Your task to perform on an android device: refresh tabs in the chrome app Image 0: 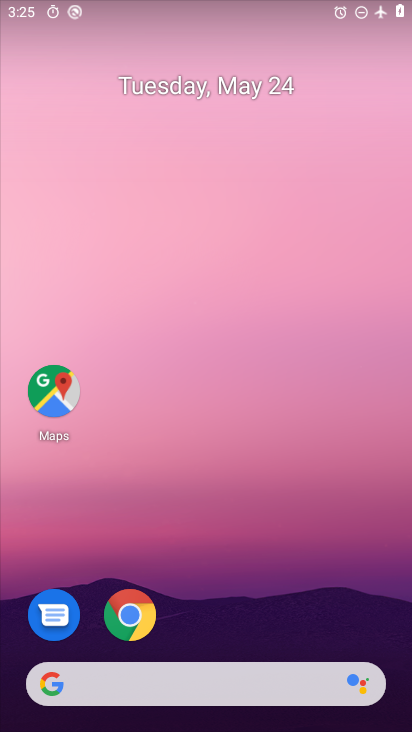
Step 0: click (126, 617)
Your task to perform on an android device: refresh tabs in the chrome app Image 1: 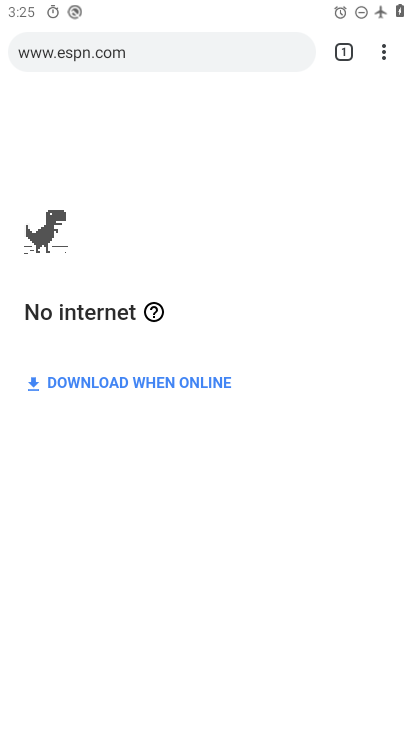
Step 1: click (382, 63)
Your task to perform on an android device: refresh tabs in the chrome app Image 2: 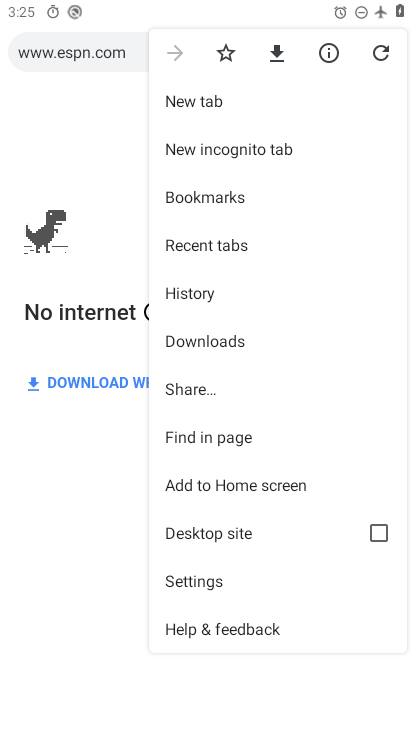
Step 2: click (379, 56)
Your task to perform on an android device: refresh tabs in the chrome app Image 3: 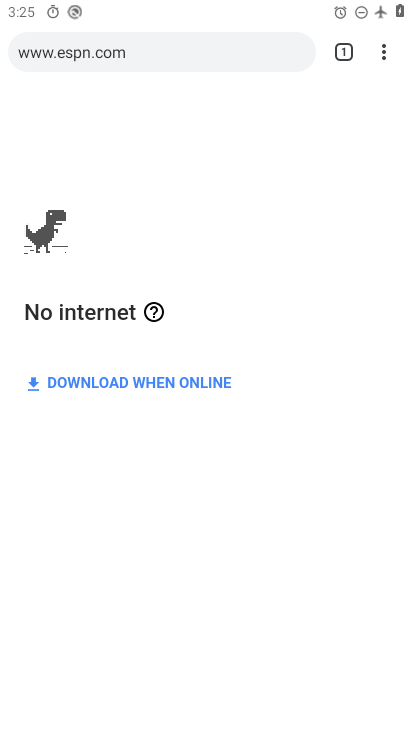
Step 3: task complete